Your task to perform on an android device: add a contact in the contacts app Image 0: 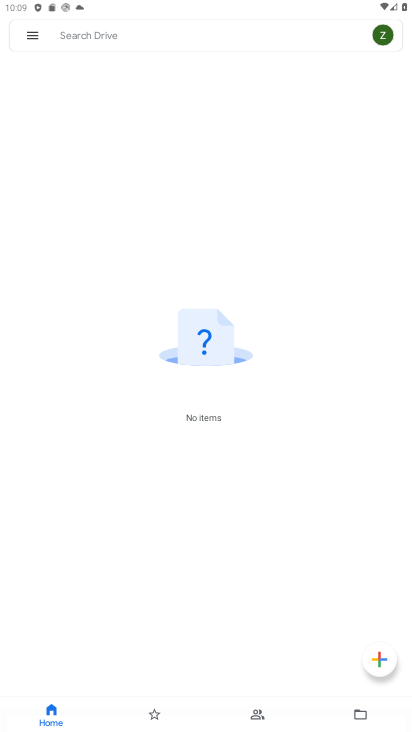
Step 0: press home button
Your task to perform on an android device: add a contact in the contacts app Image 1: 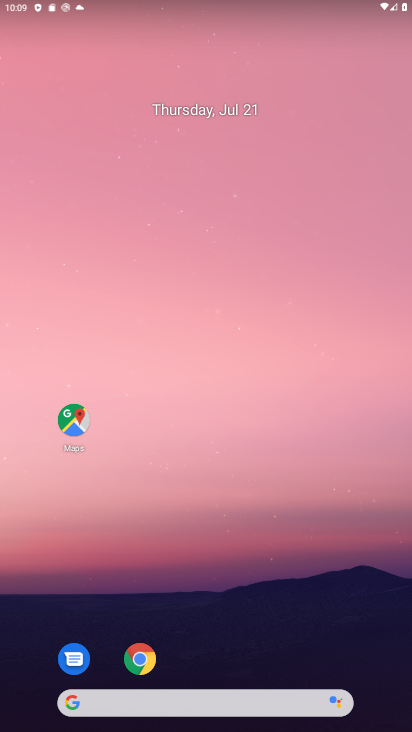
Step 1: drag from (192, 655) to (138, 201)
Your task to perform on an android device: add a contact in the contacts app Image 2: 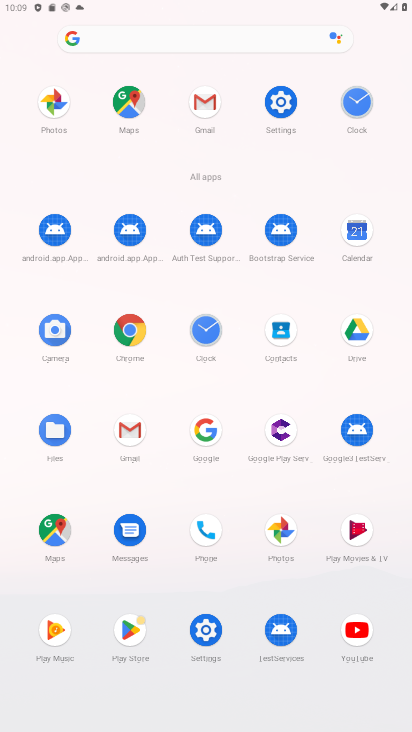
Step 2: click (349, 232)
Your task to perform on an android device: add a contact in the contacts app Image 3: 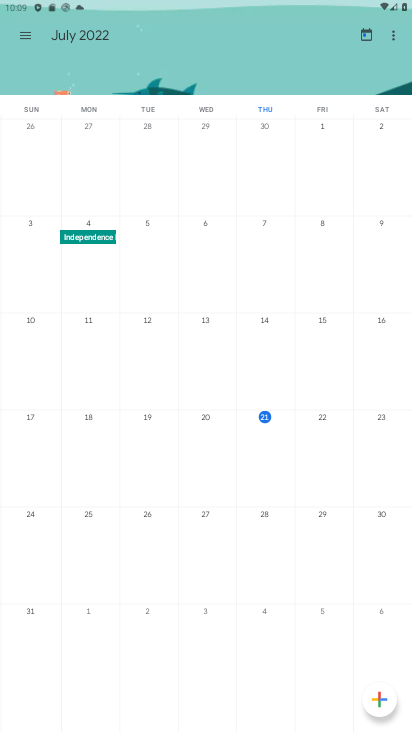
Step 3: task complete